Your task to perform on an android device: add a contact in the contacts app Image 0: 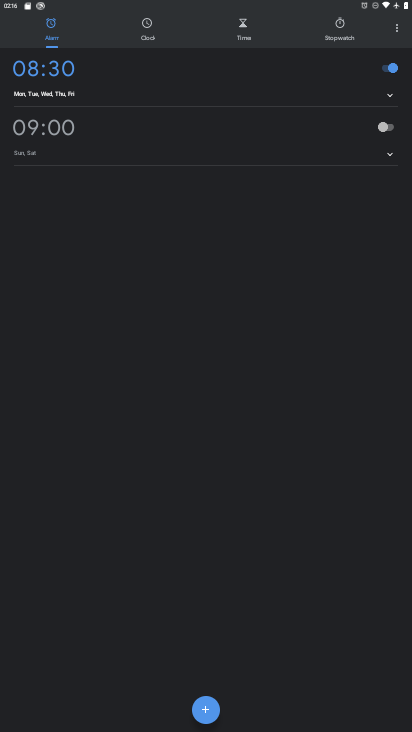
Step 0: press home button
Your task to perform on an android device: add a contact in the contacts app Image 1: 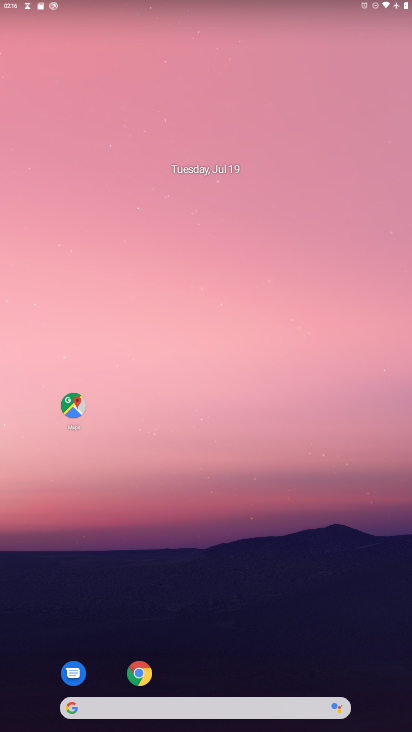
Step 1: drag from (246, 658) to (252, 193)
Your task to perform on an android device: add a contact in the contacts app Image 2: 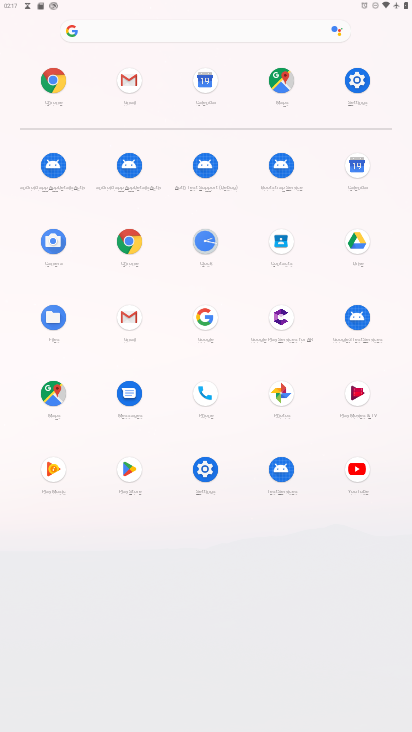
Step 2: click (196, 389)
Your task to perform on an android device: add a contact in the contacts app Image 3: 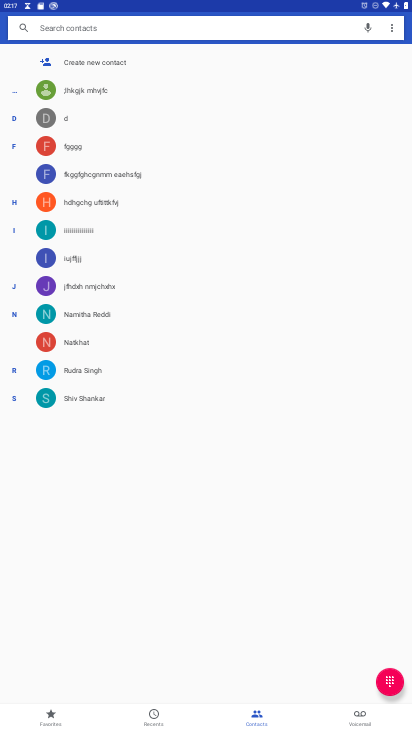
Step 3: click (79, 54)
Your task to perform on an android device: add a contact in the contacts app Image 4: 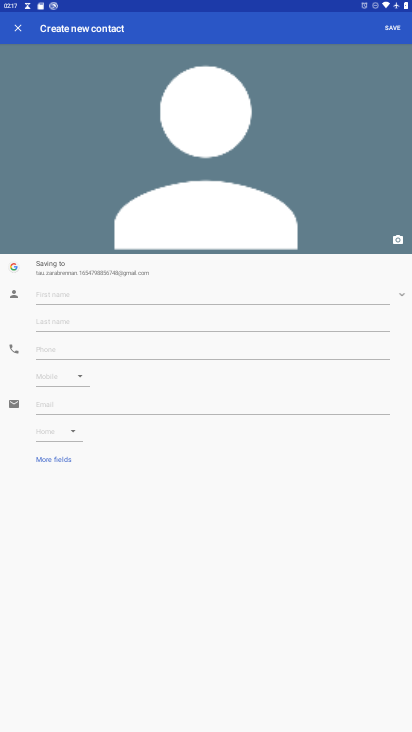
Step 4: click (135, 286)
Your task to perform on an android device: add a contact in the contacts app Image 5: 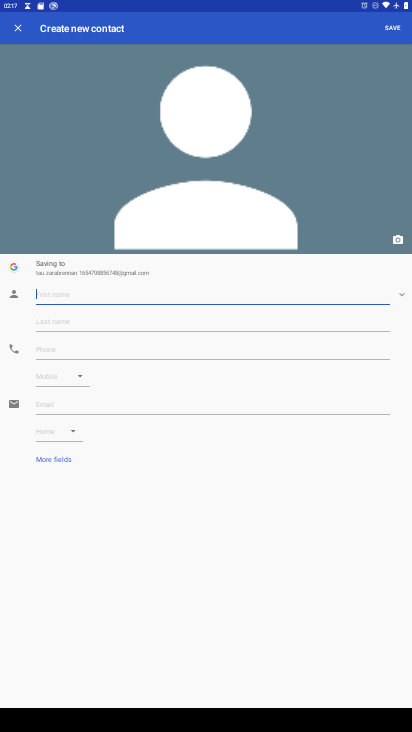
Step 5: type "aaaaaaaaaaaaaaaaaaaaa "
Your task to perform on an android device: add a contact in the contacts app Image 6: 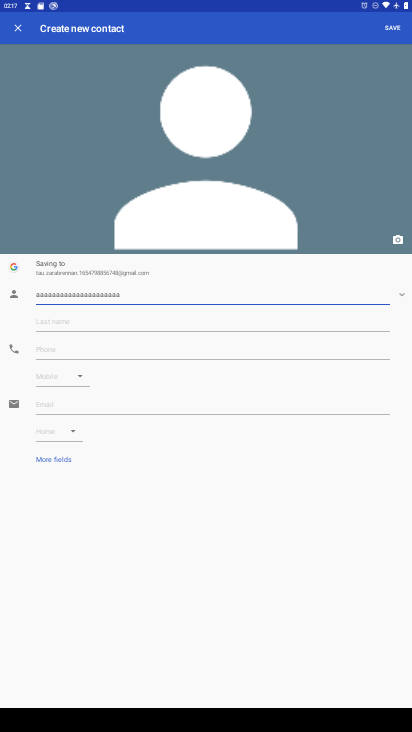
Step 6: click (105, 346)
Your task to perform on an android device: add a contact in the contacts app Image 7: 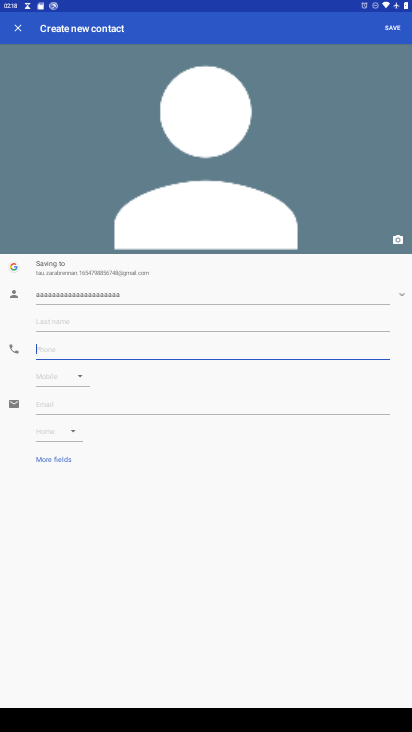
Step 7: type "3333333 "
Your task to perform on an android device: add a contact in the contacts app Image 8: 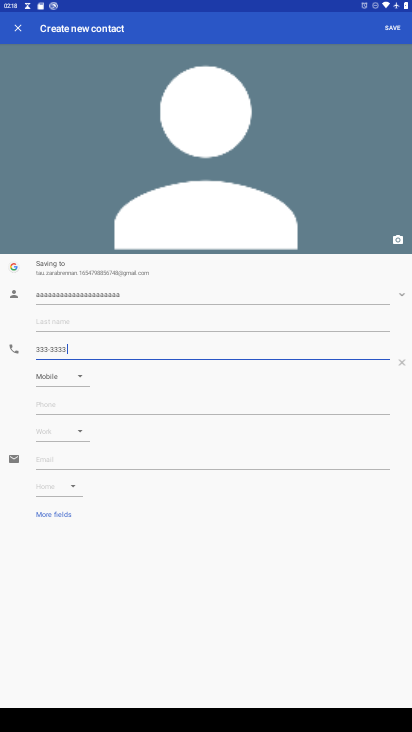
Step 8: click (395, 22)
Your task to perform on an android device: add a contact in the contacts app Image 9: 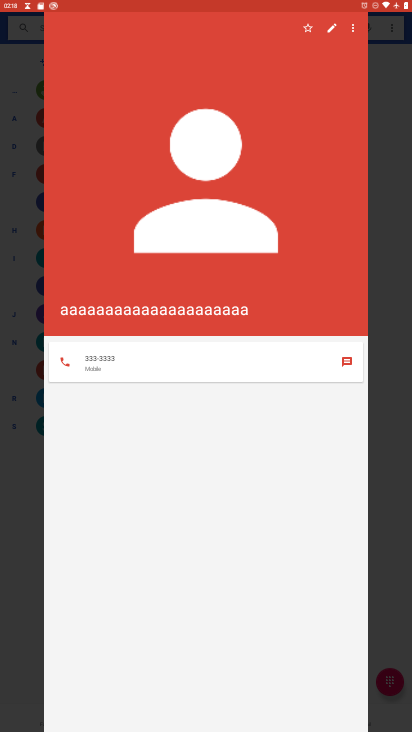
Step 9: task complete